Your task to perform on an android device: Open wifi settings Image 0: 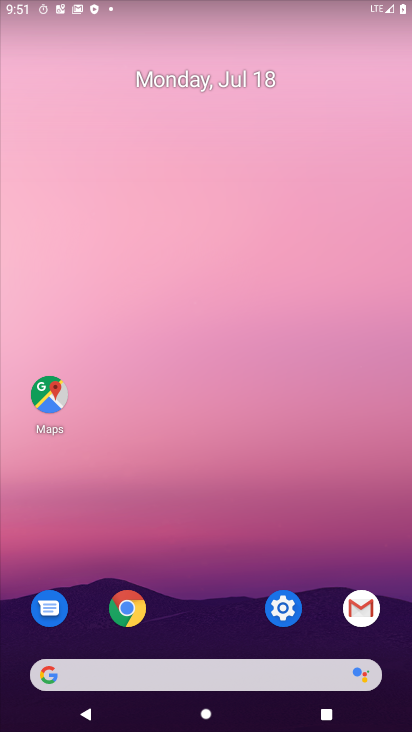
Step 0: click (267, 608)
Your task to perform on an android device: Open wifi settings Image 1: 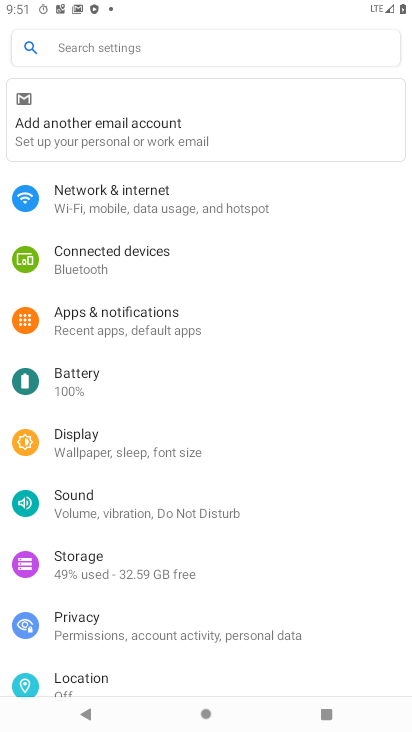
Step 1: click (129, 195)
Your task to perform on an android device: Open wifi settings Image 2: 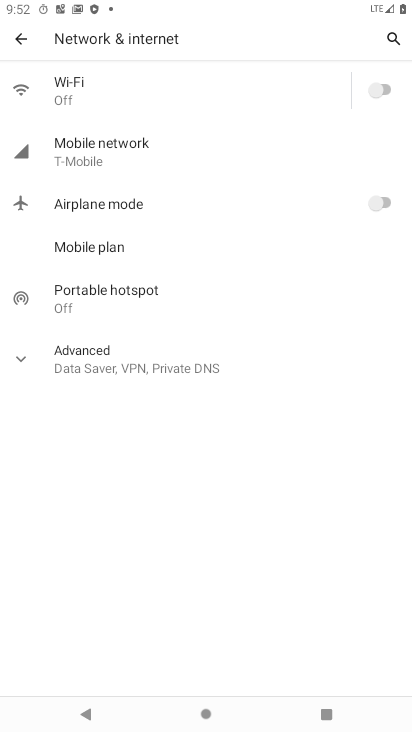
Step 2: task complete